Your task to perform on an android device: turn off notifications settings in the gmail app Image 0: 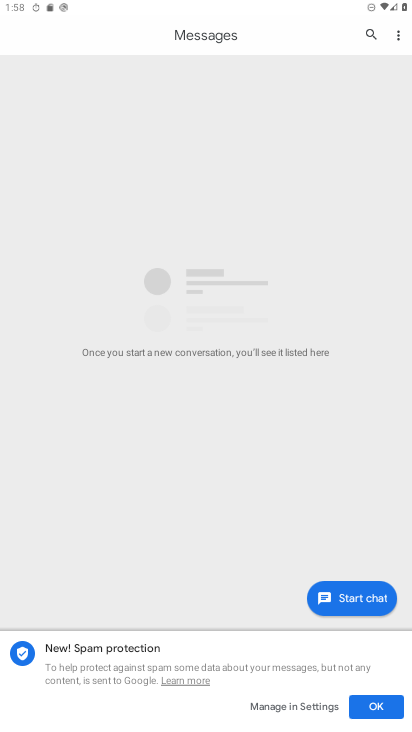
Step 0: press home button
Your task to perform on an android device: turn off notifications settings in the gmail app Image 1: 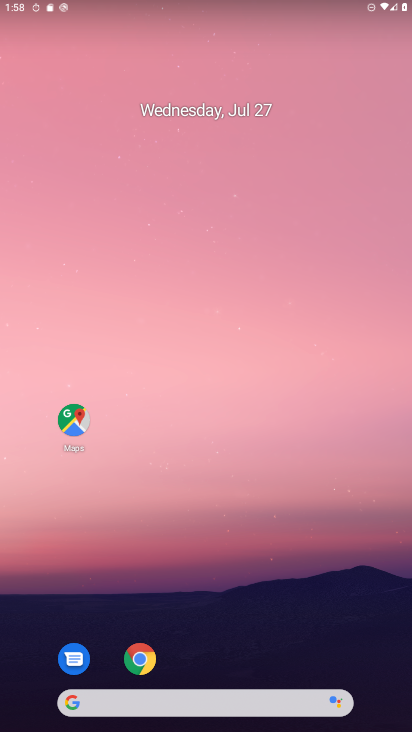
Step 1: drag from (273, 613) to (176, 56)
Your task to perform on an android device: turn off notifications settings in the gmail app Image 2: 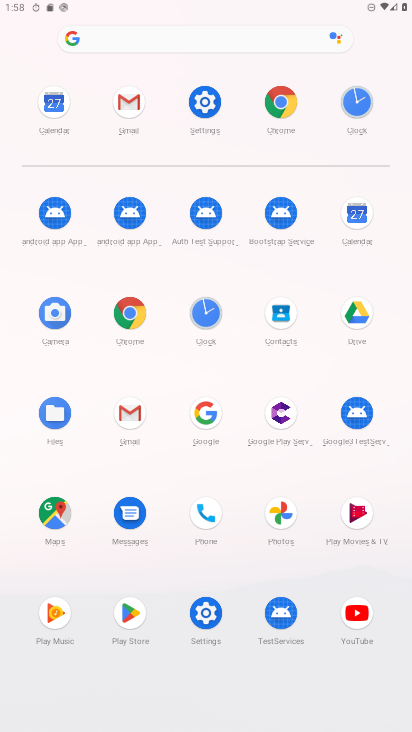
Step 2: click (128, 98)
Your task to perform on an android device: turn off notifications settings in the gmail app Image 3: 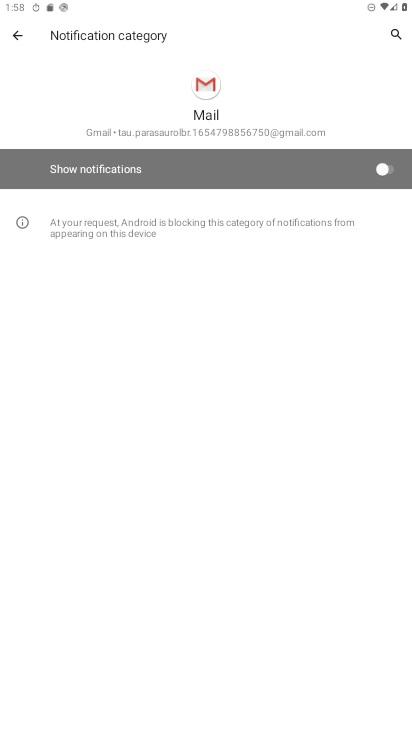
Step 3: task complete